Your task to perform on an android device: Open wifi settings Image 0: 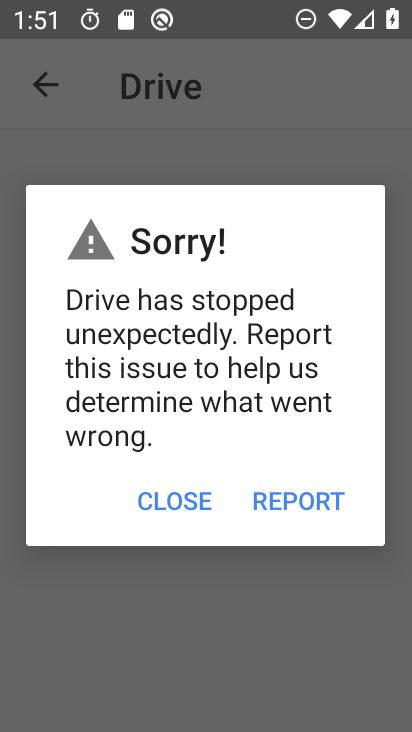
Step 0: press home button
Your task to perform on an android device: Open wifi settings Image 1: 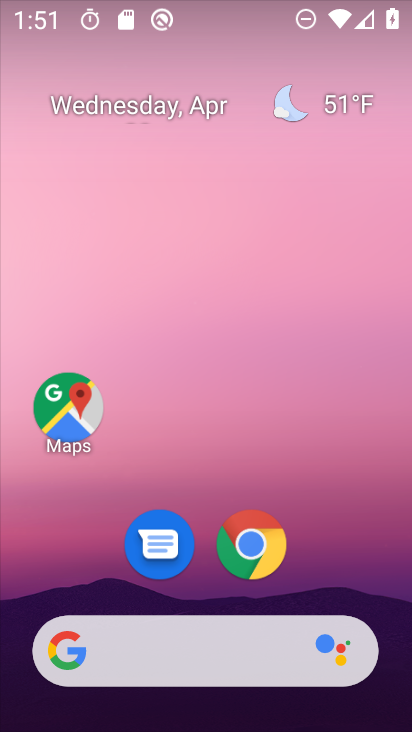
Step 1: drag from (333, 555) to (338, 181)
Your task to perform on an android device: Open wifi settings Image 2: 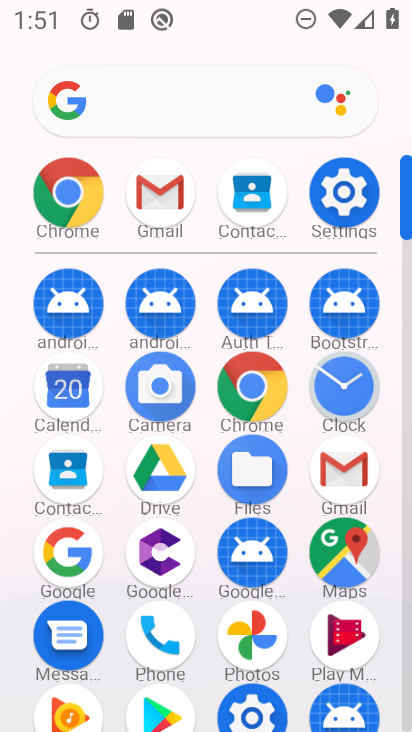
Step 2: click (355, 194)
Your task to perform on an android device: Open wifi settings Image 3: 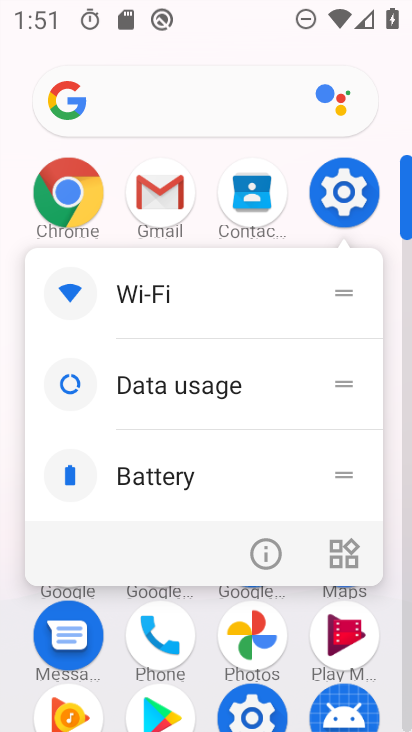
Step 3: click (340, 188)
Your task to perform on an android device: Open wifi settings Image 4: 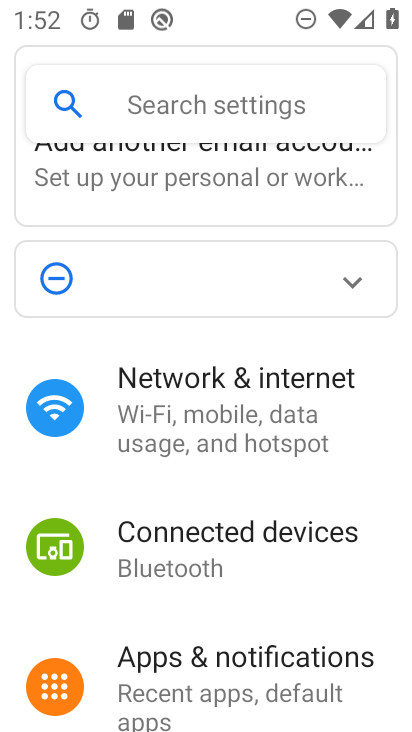
Step 4: click (269, 417)
Your task to perform on an android device: Open wifi settings Image 5: 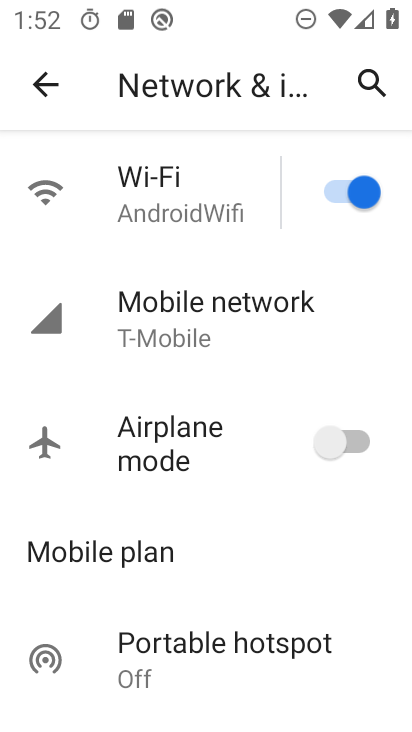
Step 5: click (197, 204)
Your task to perform on an android device: Open wifi settings Image 6: 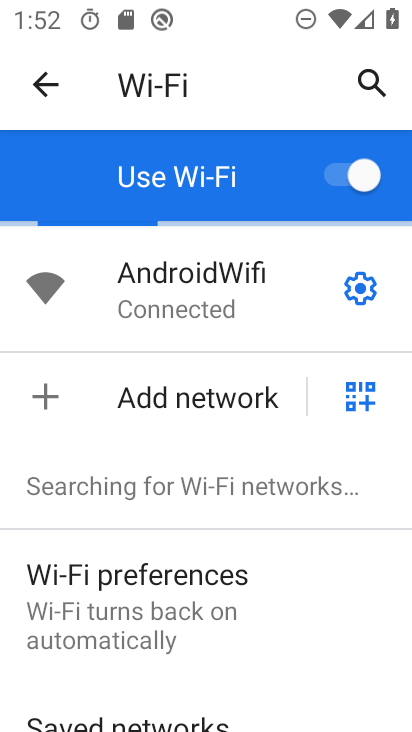
Step 6: task complete